Your task to perform on an android device: Search for desk lamps on article.com Image 0: 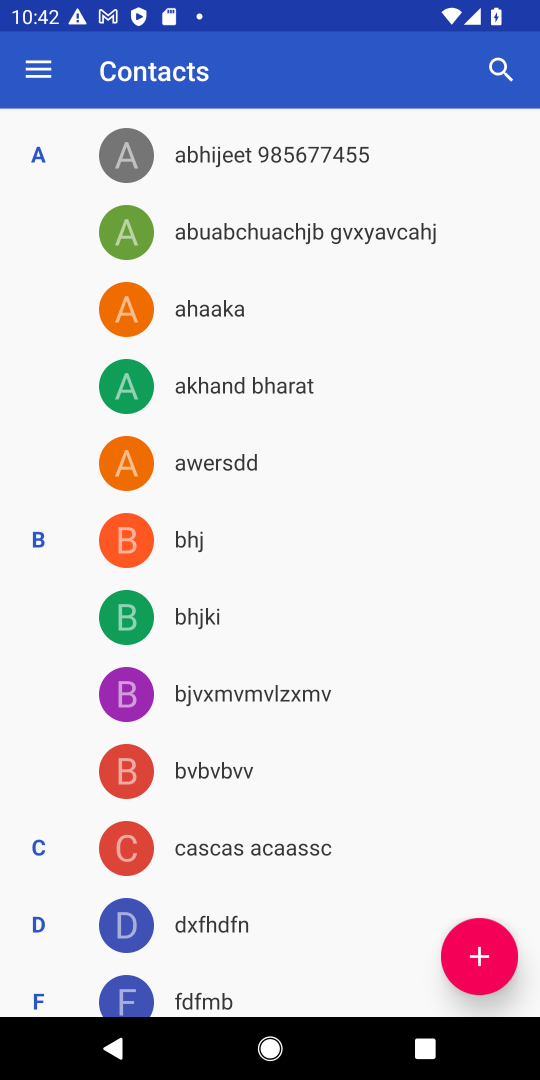
Step 0: press home button
Your task to perform on an android device: Search for desk lamps on article.com Image 1: 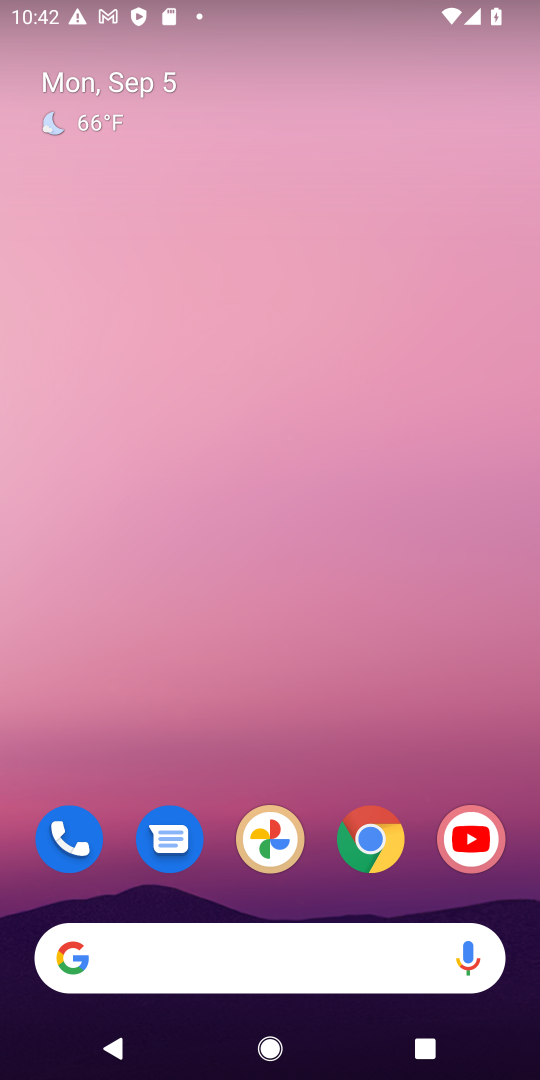
Step 1: drag from (370, 563) to (373, 140)
Your task to perform on an android device: Search for desk lamps on article.com Image 2: 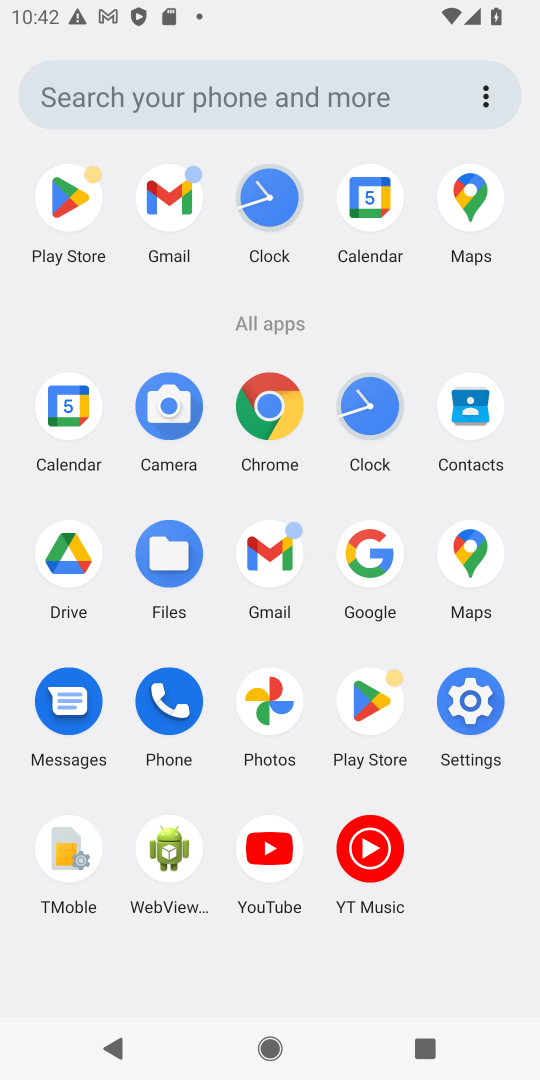
Step 2: click (371, 554)
Your task to perform on an android device: Search for desk lamps on article.com Image 3: 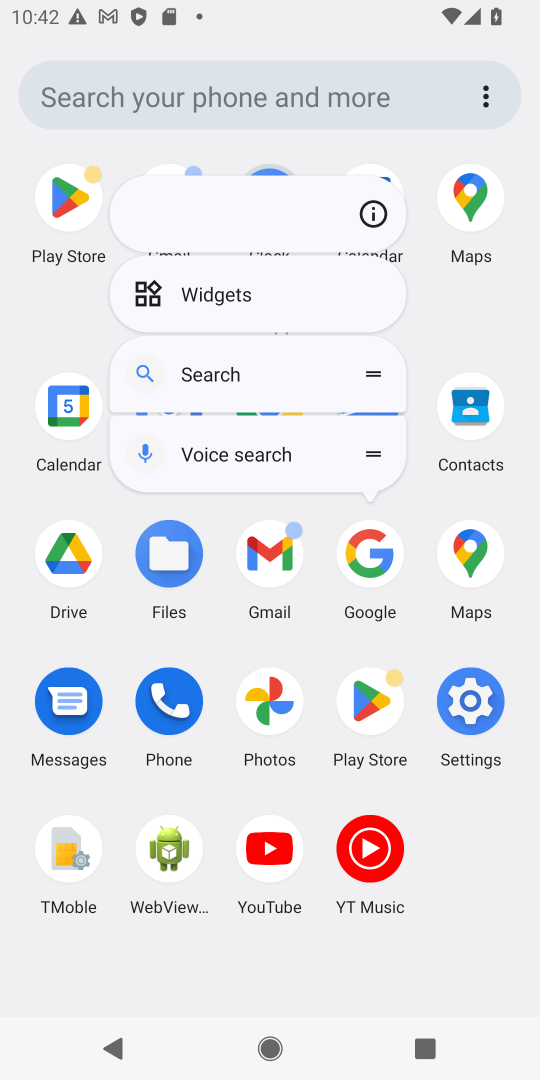
Step 3: click (371, 554)
Your task to perform on an android device: Search for desk lamps on article.com Image 4: 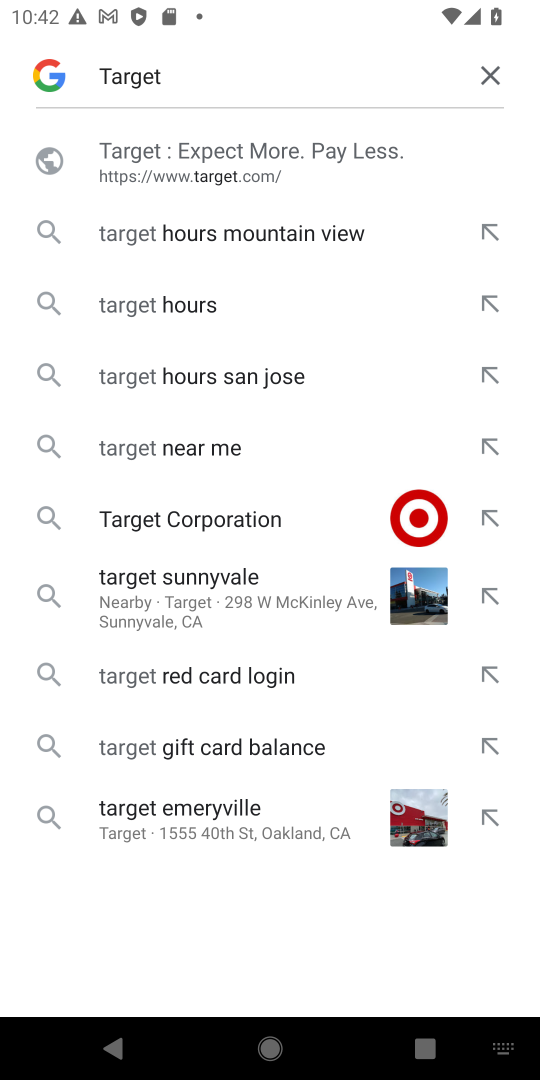
Step 4: click (491, 72)
Your task to perform on an android device: Search for desk lamps on article.com Image 5: 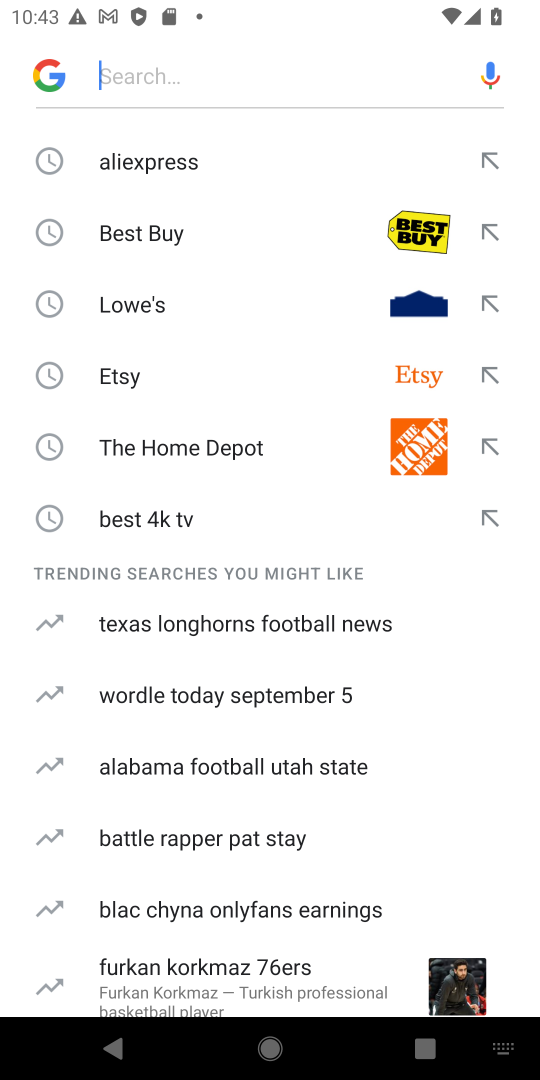
Step 5: type "article.com"
Your task to perform on an android device: Search for desk lamps on article.com Image 6: 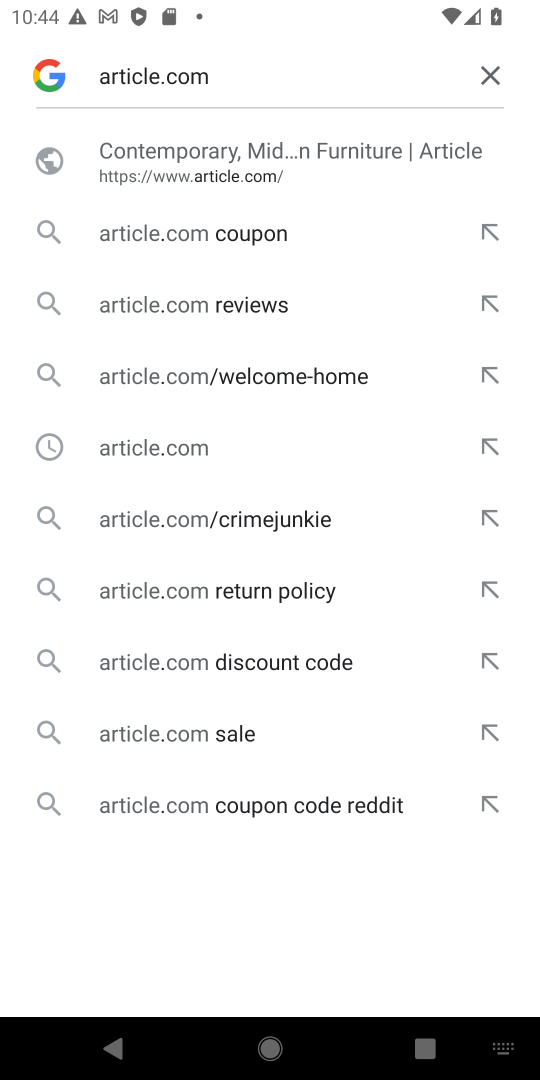
Step 6: click (137, 439)
Your task to perform on an android device: Search for desk lamps on article.com Image 7: 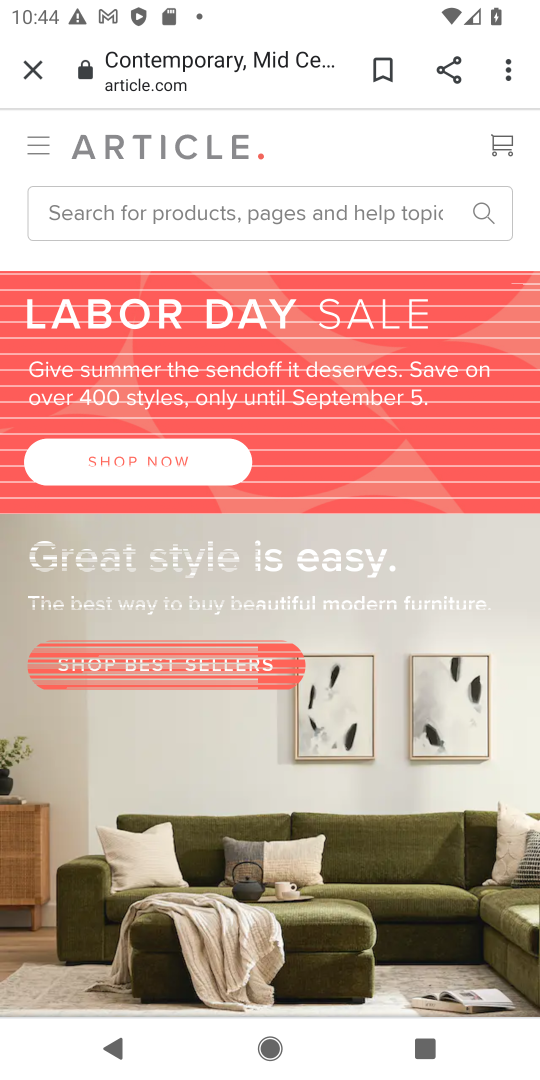
Step 7: click (117, 207)
Your task to perform on an android device: Search for desk lamps on article.com Image 8: 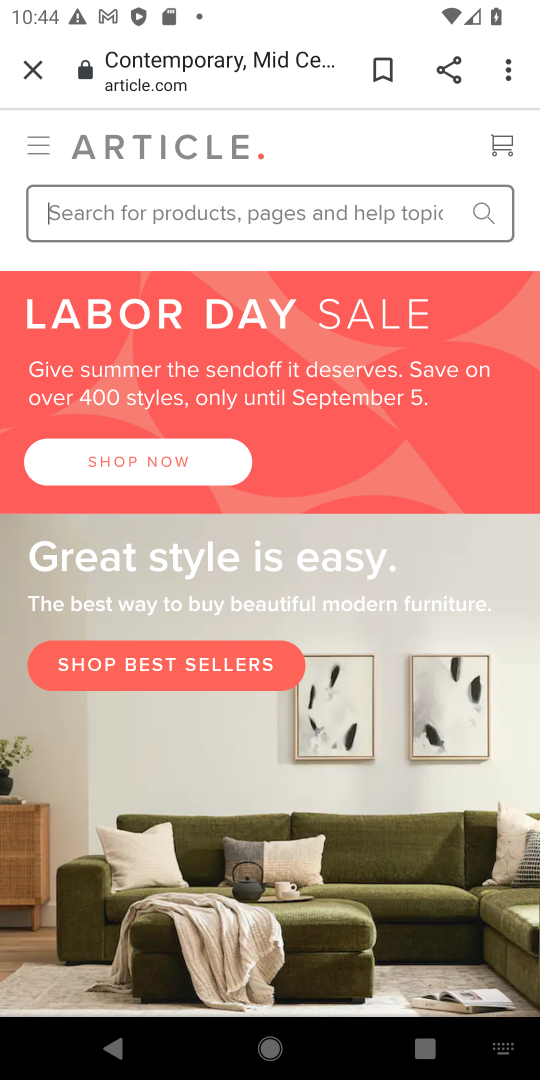
Step 8: type "desk lamps"
Your task to perform on an android device: Search for desk lamps on article.com Image 9: 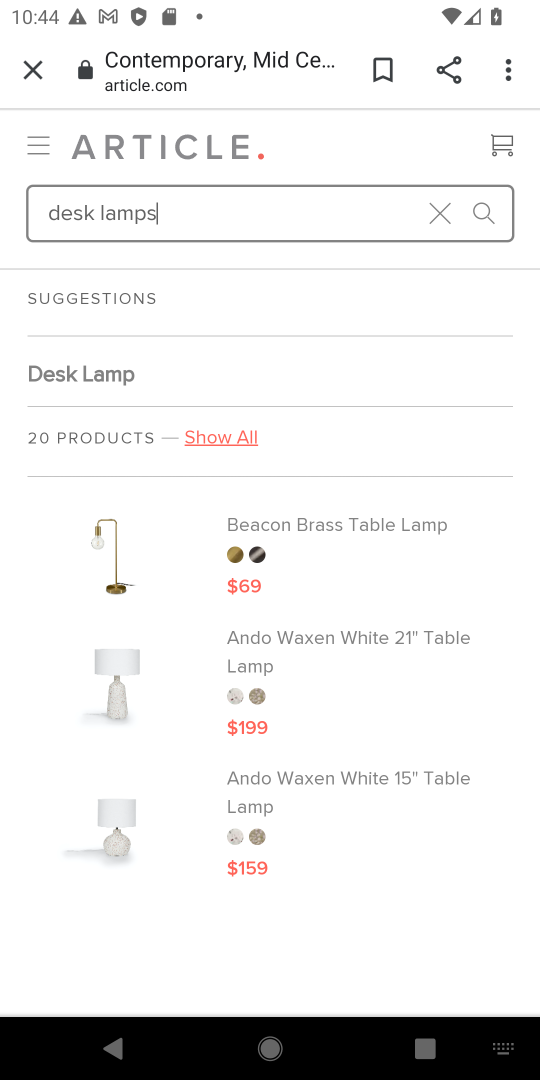
Step 9: click (87, 378)
Your task to perform on an android device: Search for desk lamps on article.com Image 10: 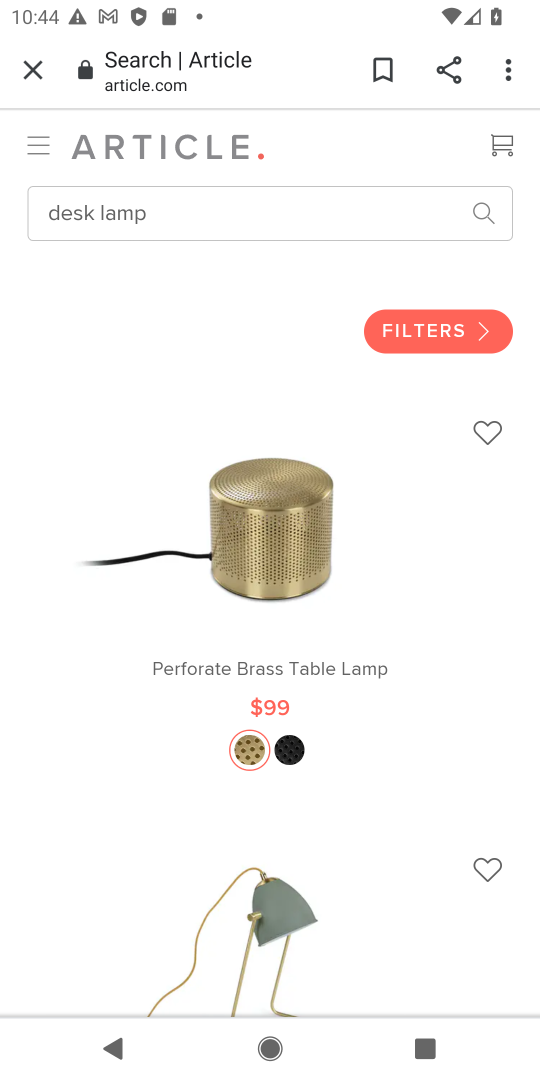
Step 10: task complete